Your task to perform on an android device: turn off notifications in google photos Image 0: 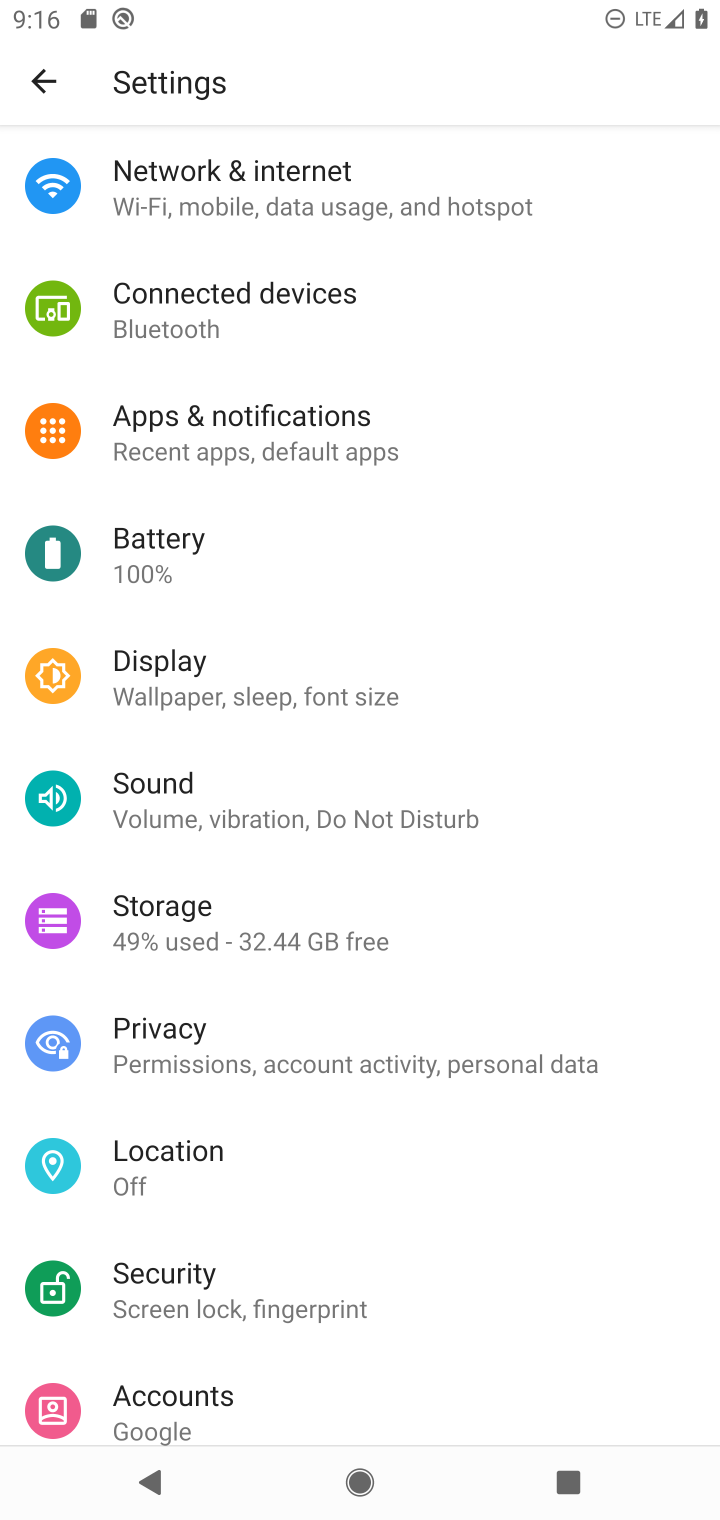
Step 0: press home button
Your task to perform on an android device: turn off notifications in google photos Image 1: 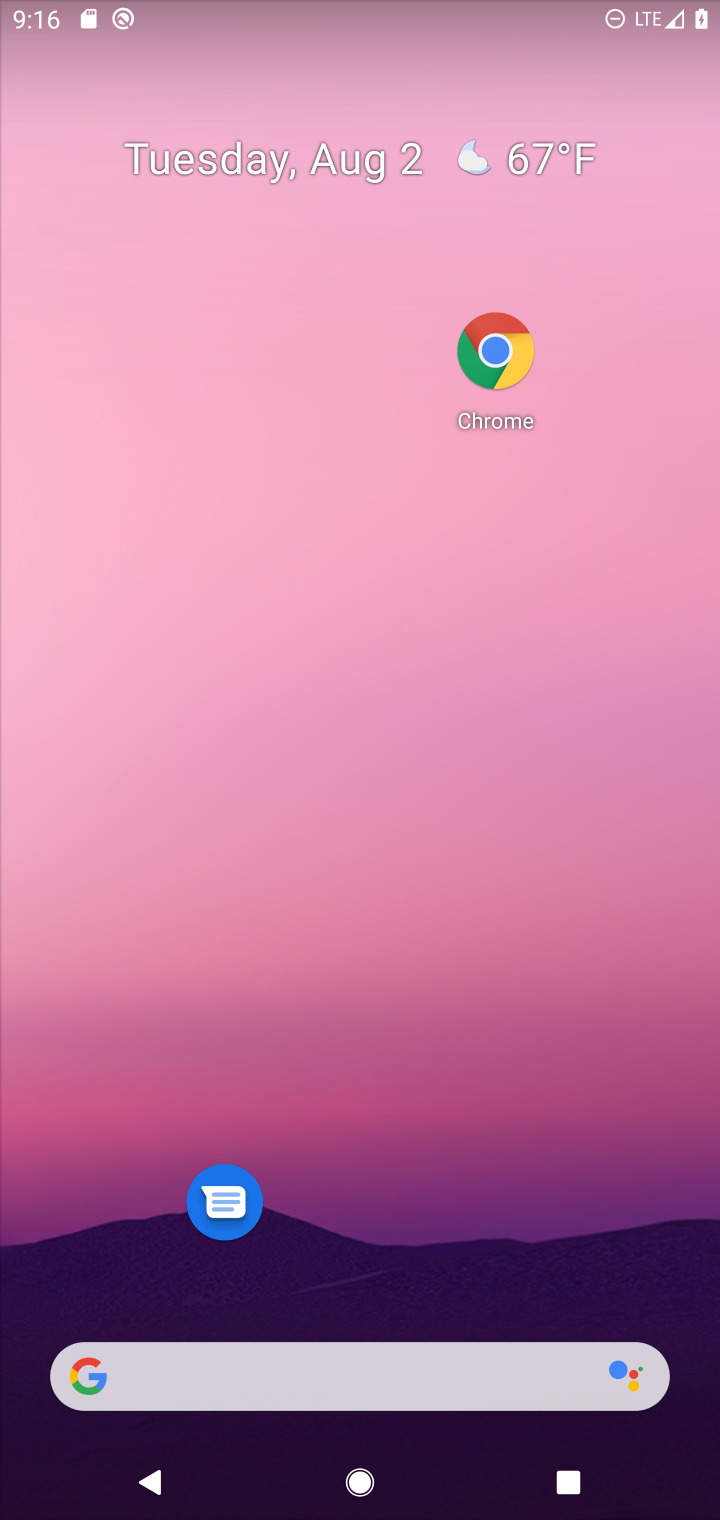
Step 1: drag from (368, 1294) to (343, 1)
Your task to perform on an android device: turn off notifications in google photos Image 2: 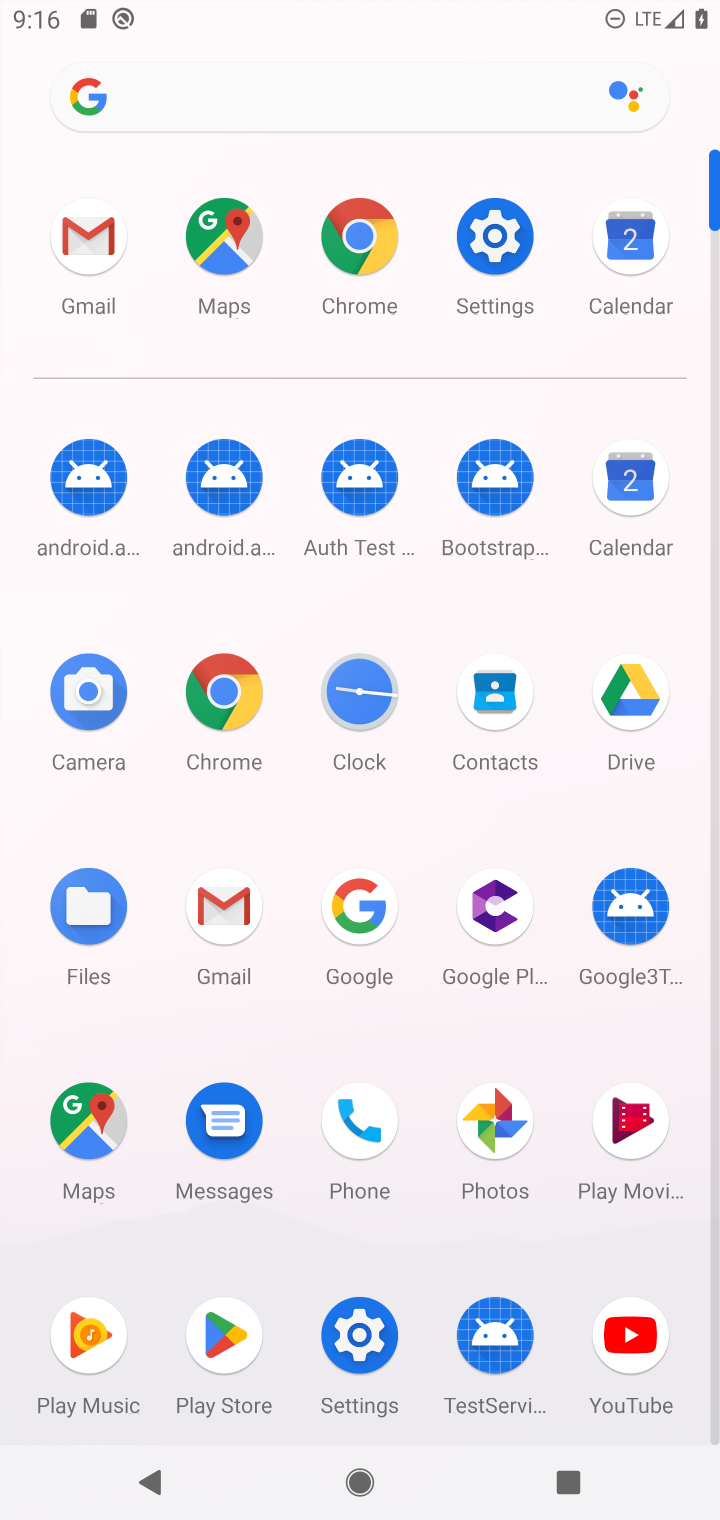
Step 2: click (485, 1129)
Your task to perform on an android device: turn off notifications in google photos Image 3: 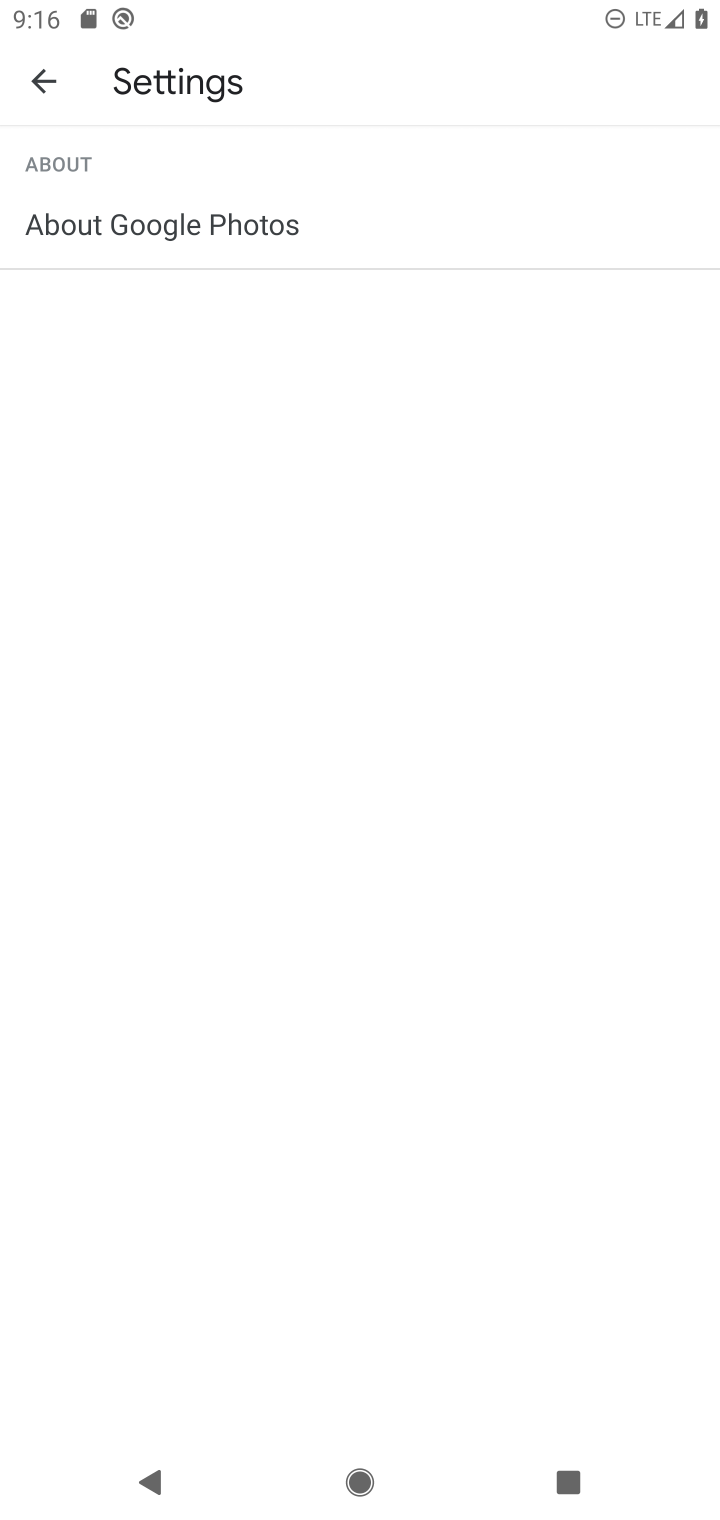
Step 3: click (36, 81)
Your task to perform on an android device: turn off notifications in google photos Image 4: 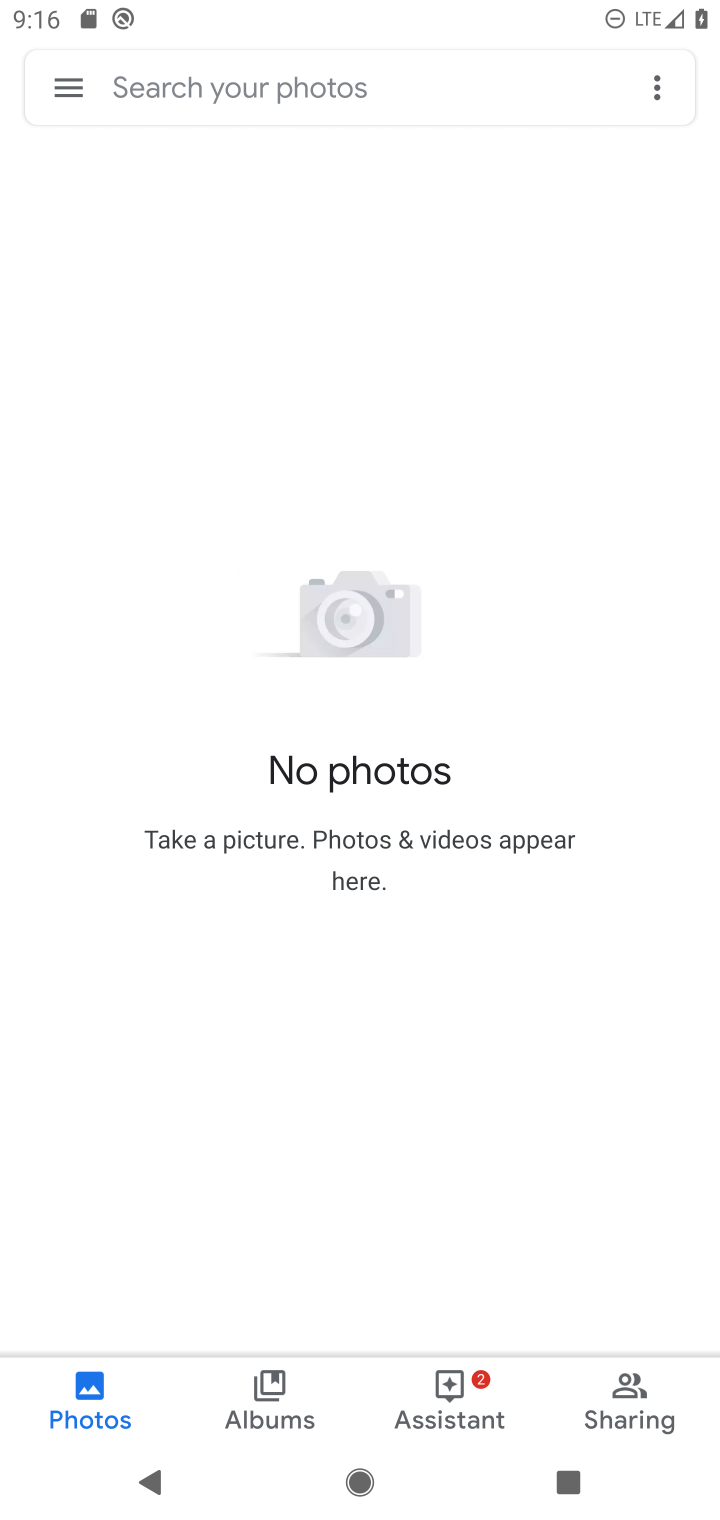
Step 4: click (71, 86)
Your task to perform on an android device: turn off notifications in google photos Image 5: 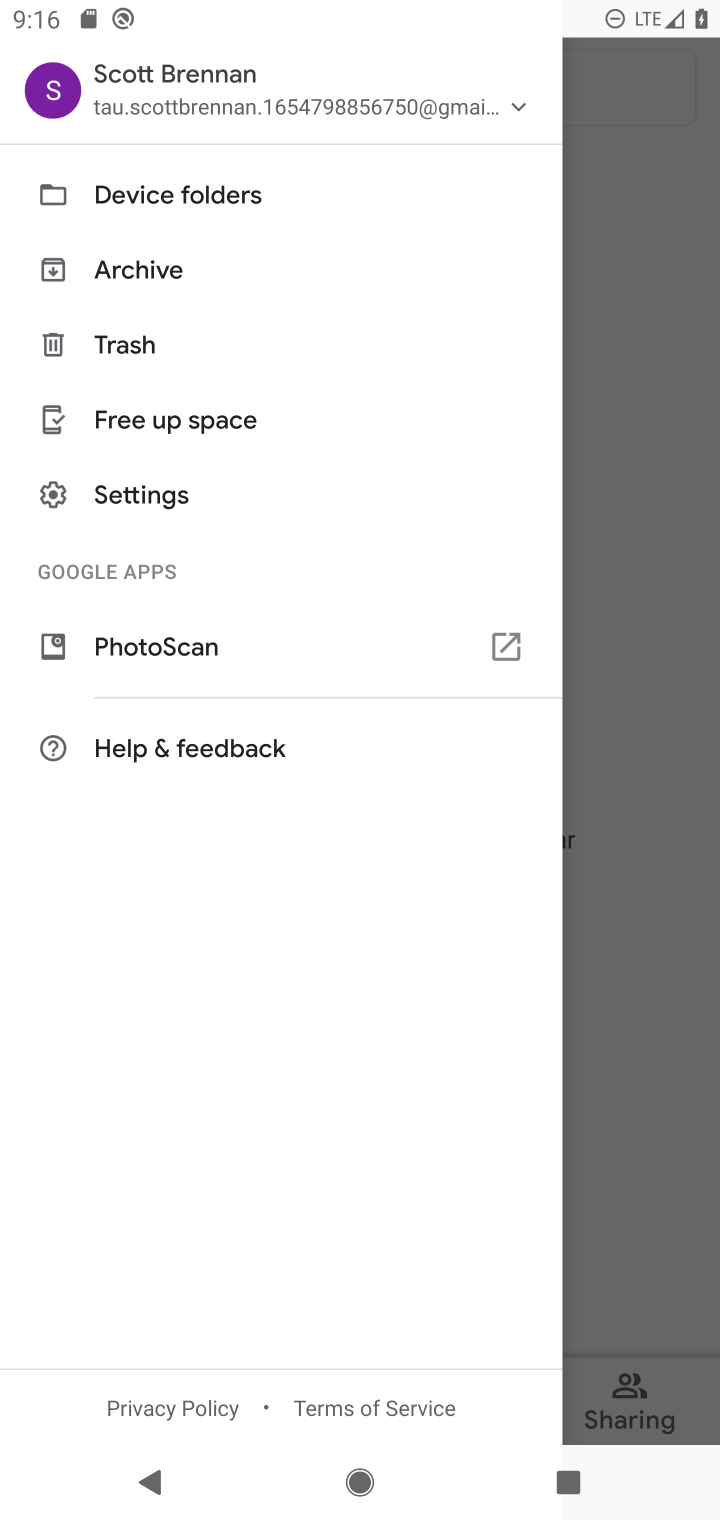
Step 5: click (103, 496)
Your task to perform on an android device: turn off notifications in google photos Image 6: 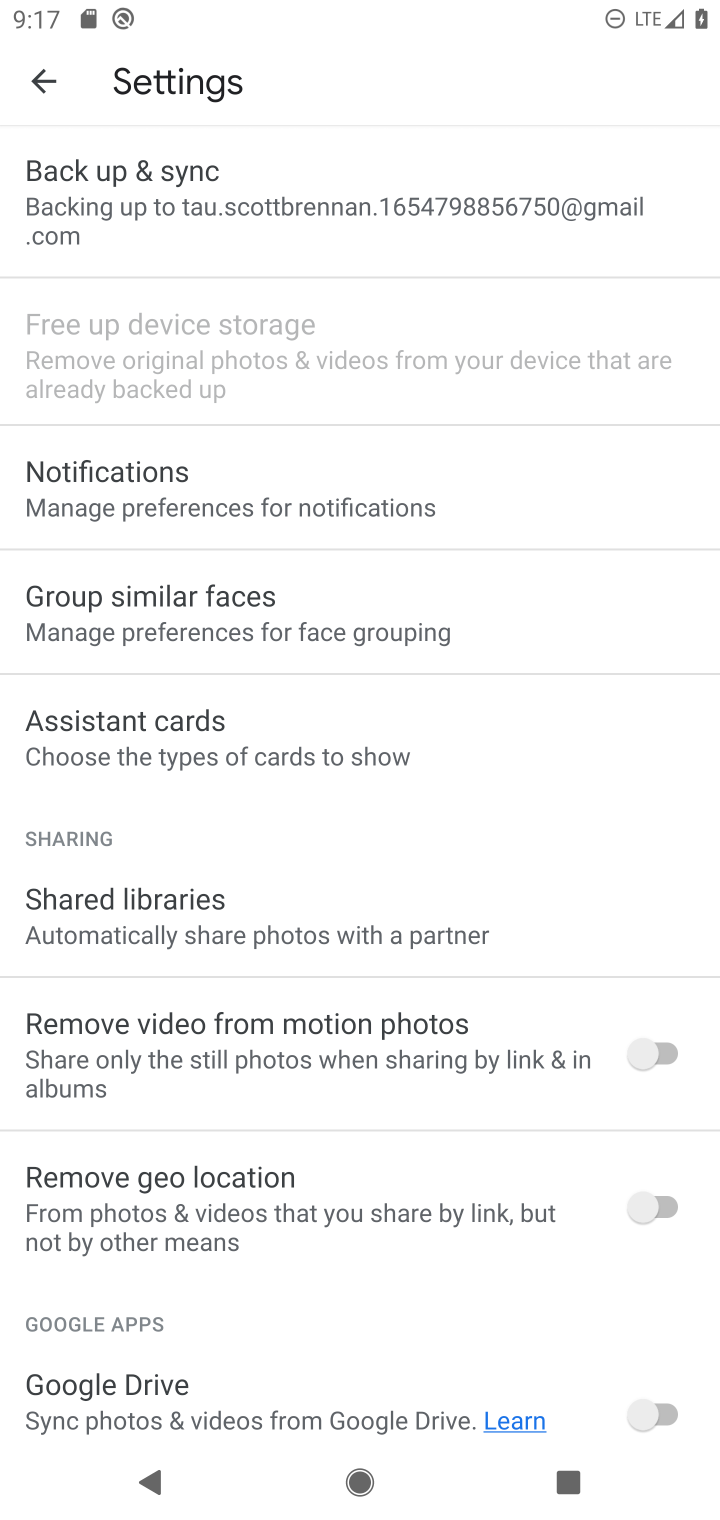
Step 6: click (152, 495)
Your task to perform on an android device: turn off notifications in google photos Image 7: 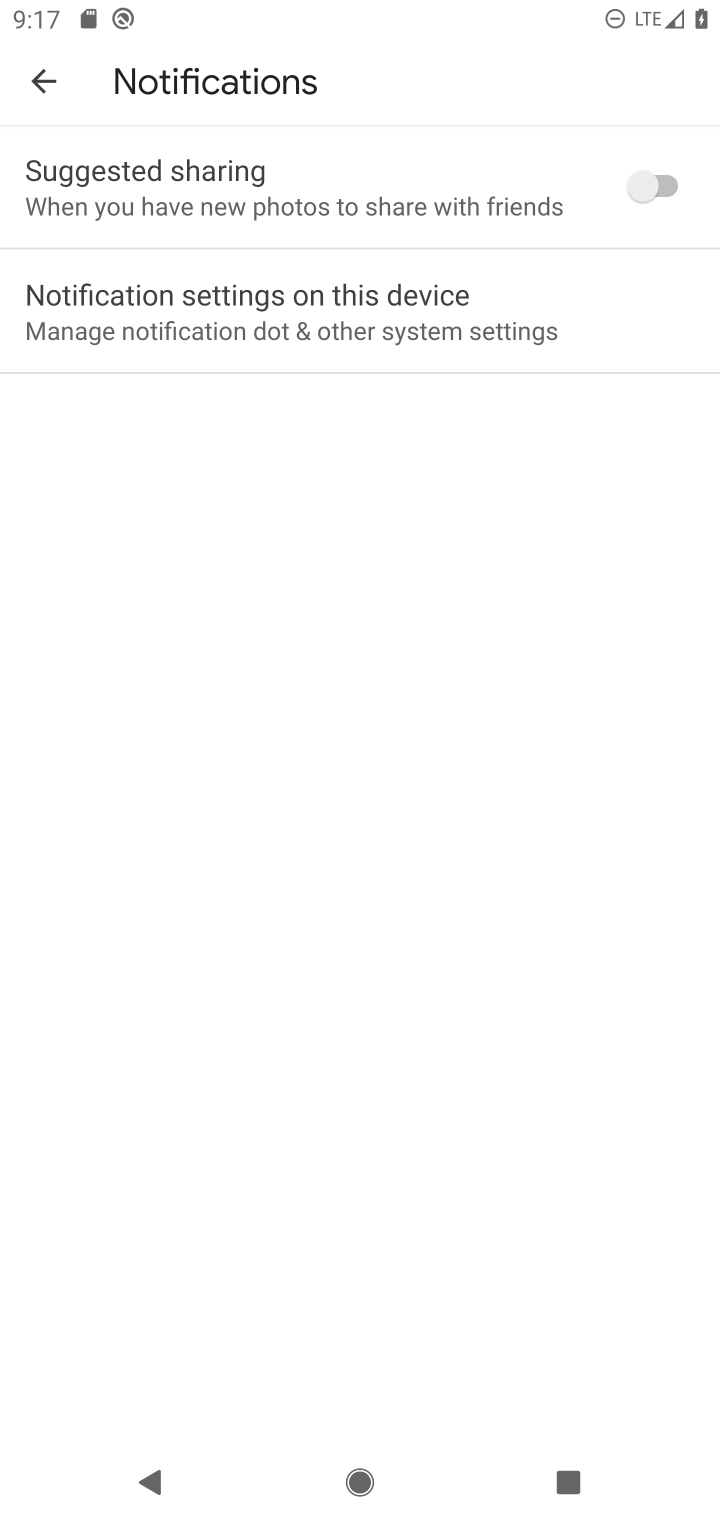
Step 7: click (159, 311)
Your task to perform on an android device: turn off notifications in google photos Image 8: 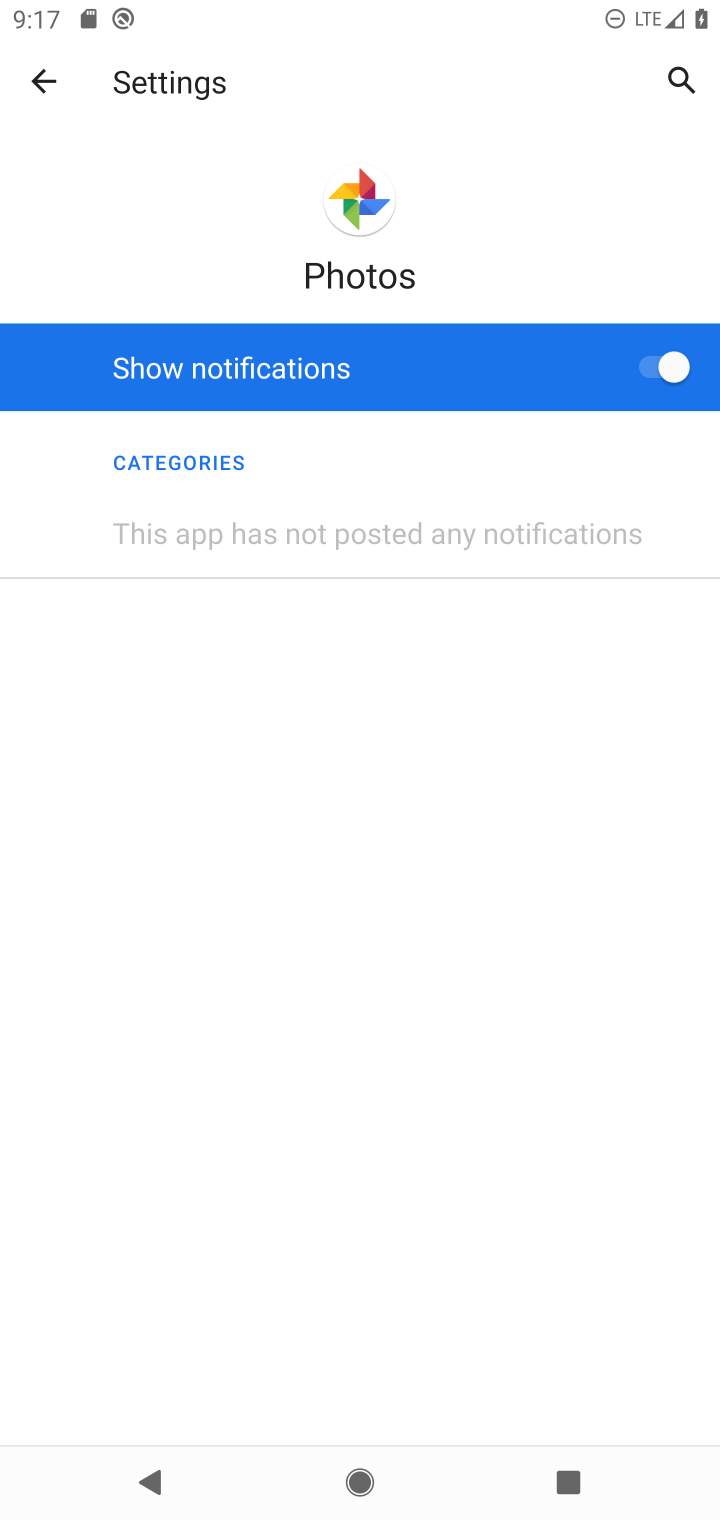
Step 8: click (657, 373)
Your task to perform on an android device: turn off notifications in google photos Image 9: 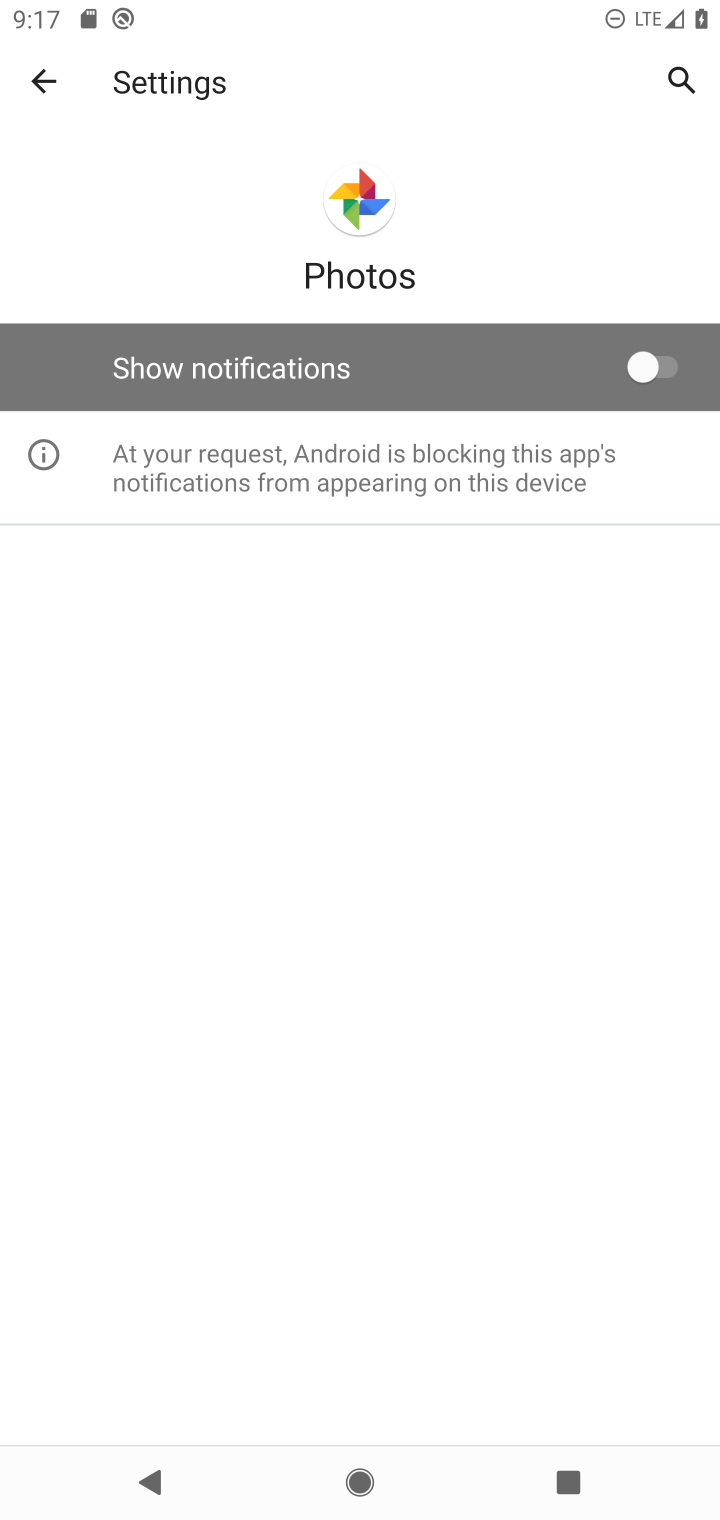
Step 9: task complete